Your task to perform on an android device: Go to Yahoo.com Image 0: 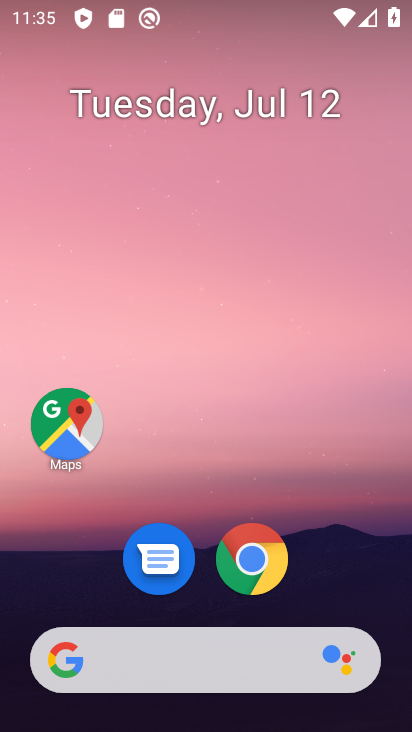
Step 0: drag from (190, 616) to (185, 190)
Your task to perform on an android device: Go to Yahoo.com Image 1: 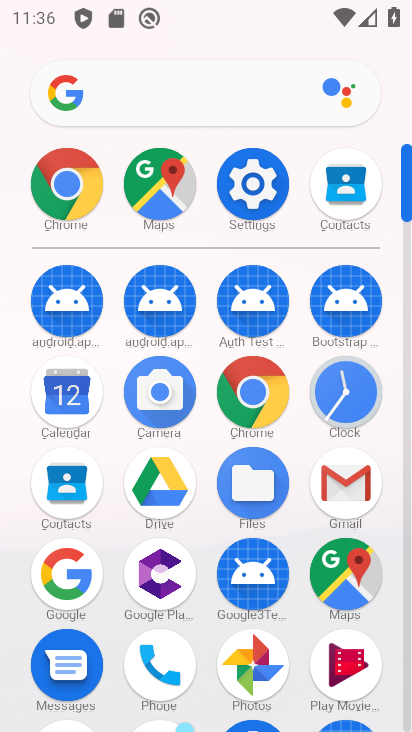
Step 1: click (251, 405)
Your task to perform on an android device: Go to Yahoo.com Image 2: 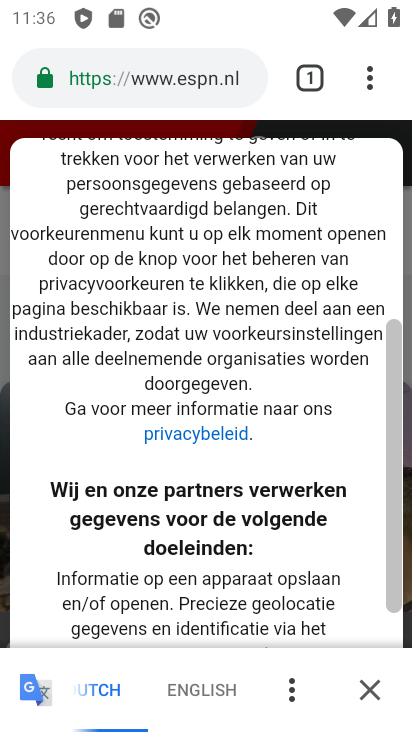
Step 2: click (139, 75)
Your task to perform on an android device: Go to Yahoo.com Image 3: 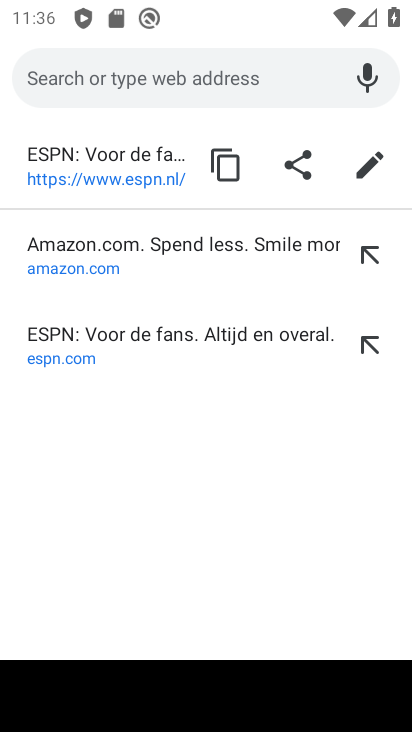
Step 3: type "yahoo"
Your task to perform on an android device: Go to Yahoo.com Image 4: 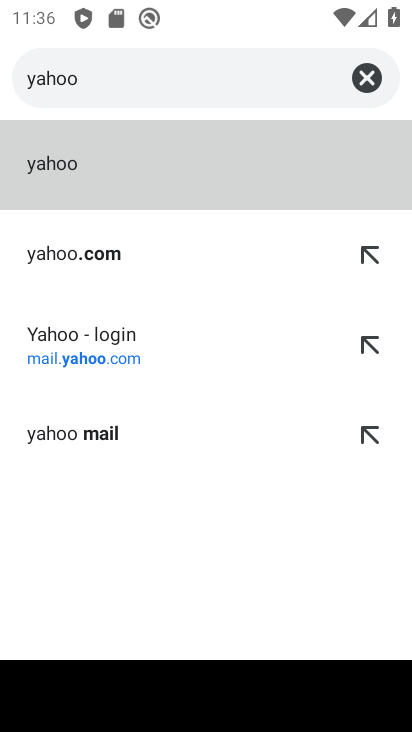
Step 4: click (125, 352)
Your task to perform on an android device: Go to Yahoo.com Image 5: 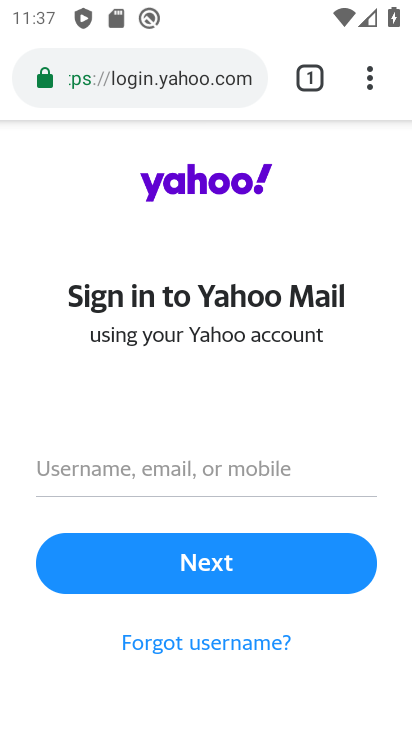
Step 5: task complete